Your task to perform on an android device: Open calendar and show me the fourth week of next month Image 0: 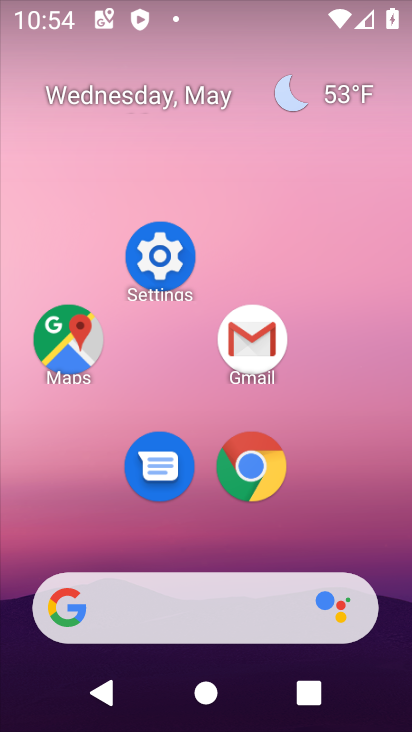
Step 0: drag from (173, 554) to (268, 19)
Your task to perform on an android device: Open calendar and show me the fourth week of next month Image 1: 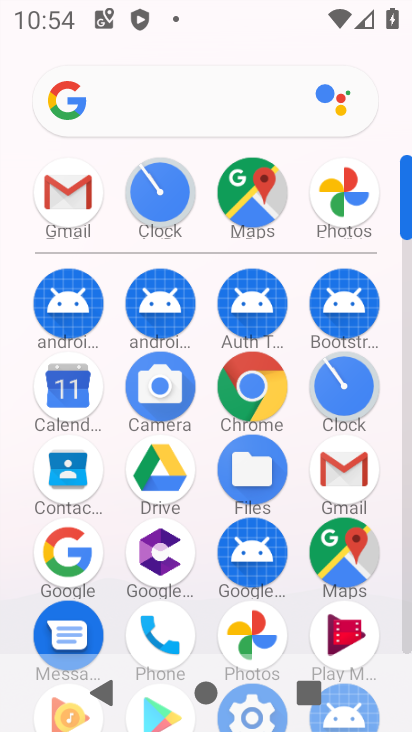
Step 1: click (77, 397)
Your task to perform on an android device: Open calendar and show me the fourth week of next month Image 2: 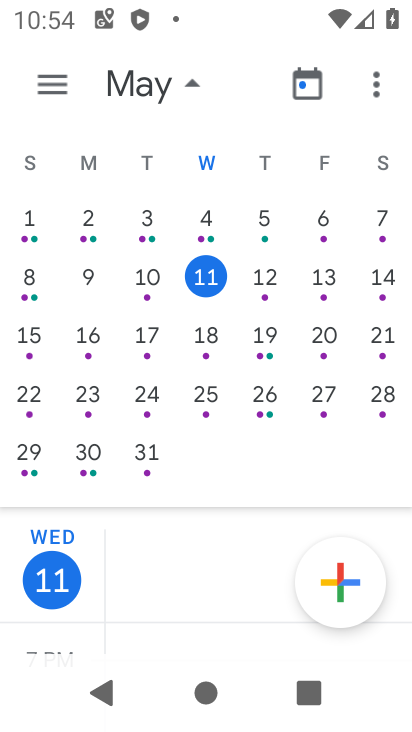
Step 2: click (139, 85)
Your task to perform on an android device: Open calendar and show me the fourth week of next month Image 3: 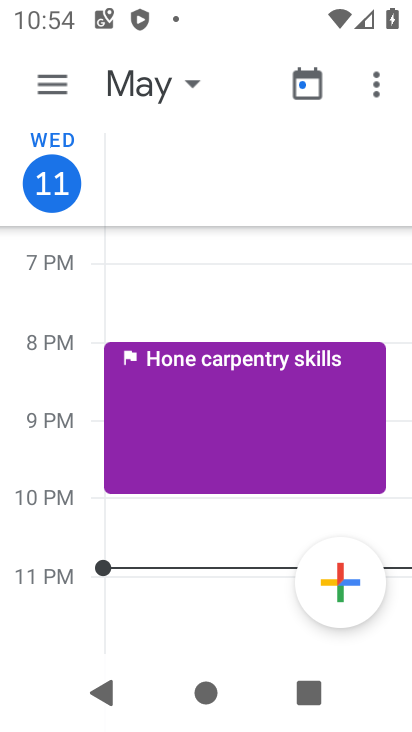
Step 3: click (140, 80)
Your task to perform on an android device: Open calendar and show me the fourth week of next month Image 4: 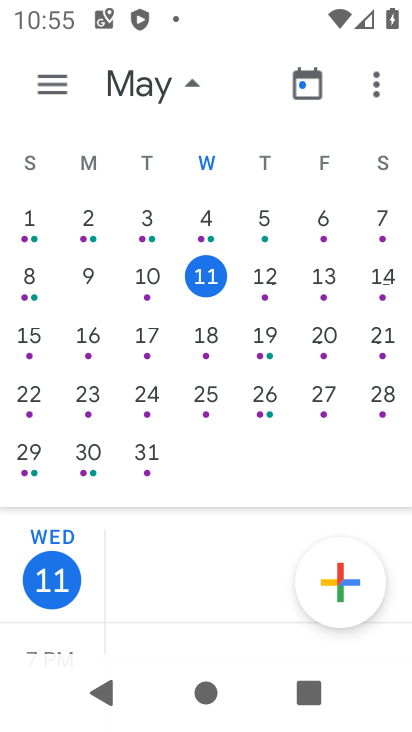
Step 4: drag from (320, 344) to (29, 398)
Your task to perform on an android device: Open calendar and show me the fourth week of next month Image 5: 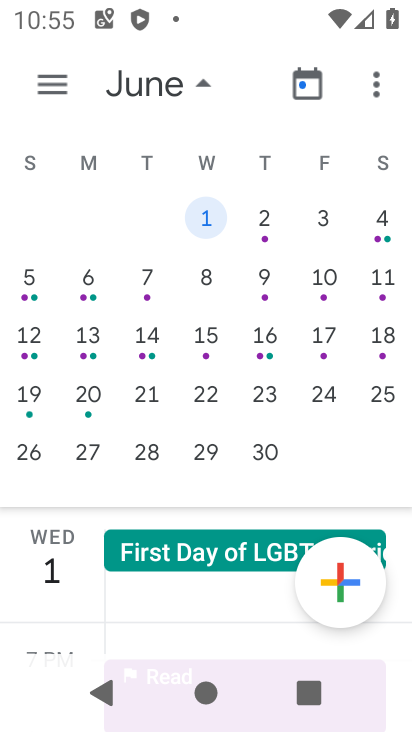
Step 5: click (261, 386)
Your task to perform on an android device: Open calendar and show me the fourth week of next month Image 6: 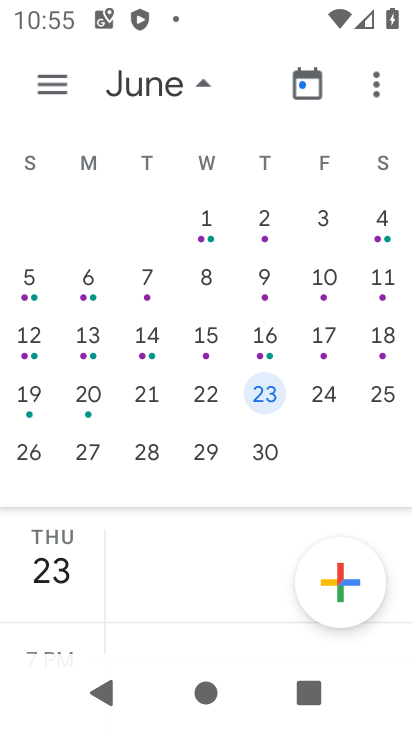
Step 6: task complete